Your task to perform on an android device: Go to Reddit.com Image 0: 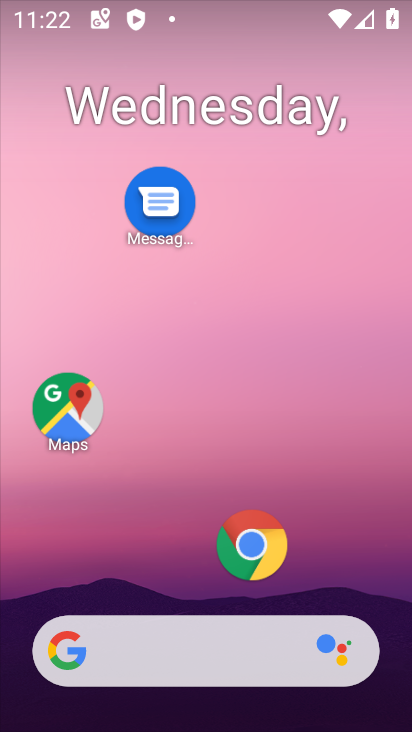
Step 0: click (259, 546)
Your task to perform on an android device: Go to Reddit.com Image 1: 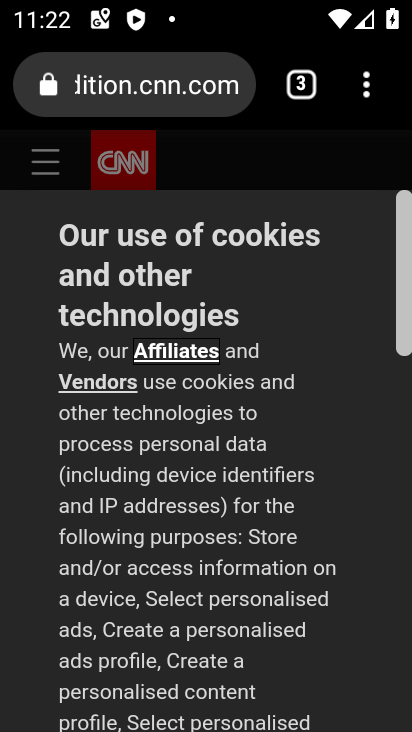
Step 1: click (301, 78)
Your task to perform on an android device: Go to Reddit.com Image 2: 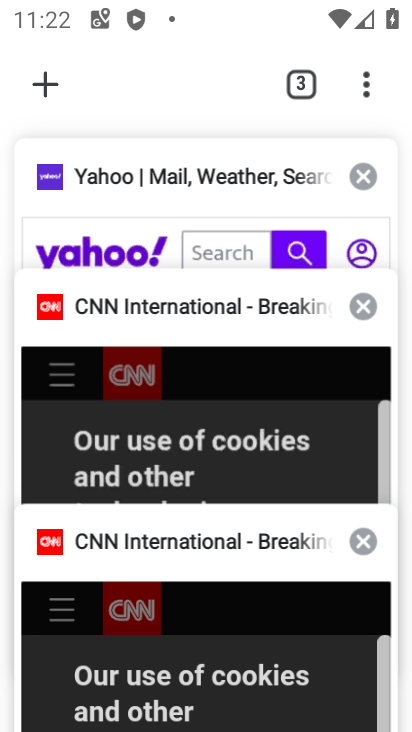
Step 2: click (53, 82)
Your task to perform on an android device: Go to Reddit.com Image 3: 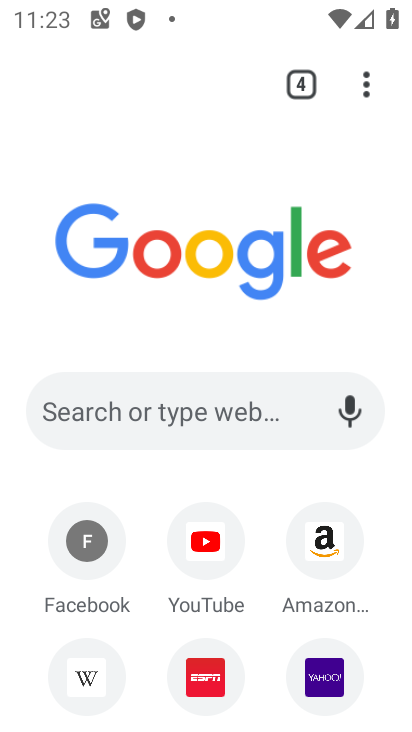
Step 3: click (157, 388)
Your task to perform on an android device: Go to Reddit.com Image 4: 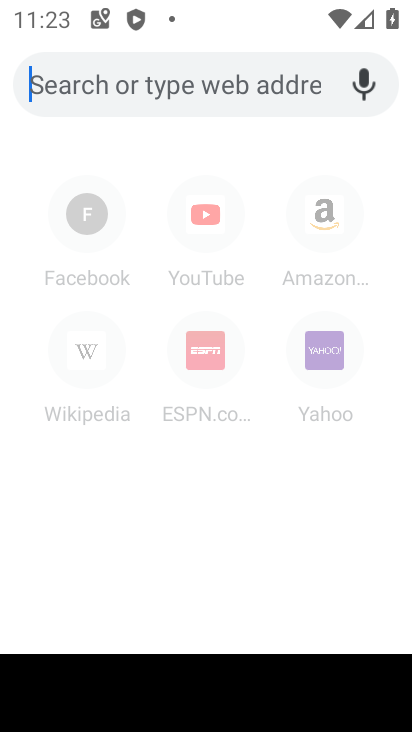
Step 4: type "Reddit.com"
Your task to perform on an android device: Go to Reddit.com Image 5: 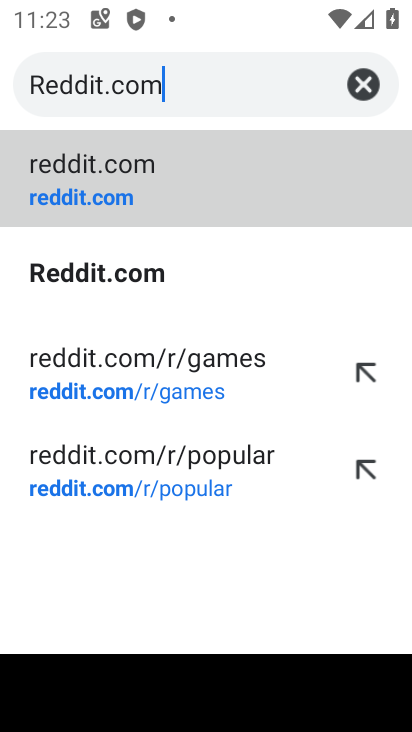
Step 5: click (203, 164)
Your task to perform on an android device: Go to Reddit.com Image 6: 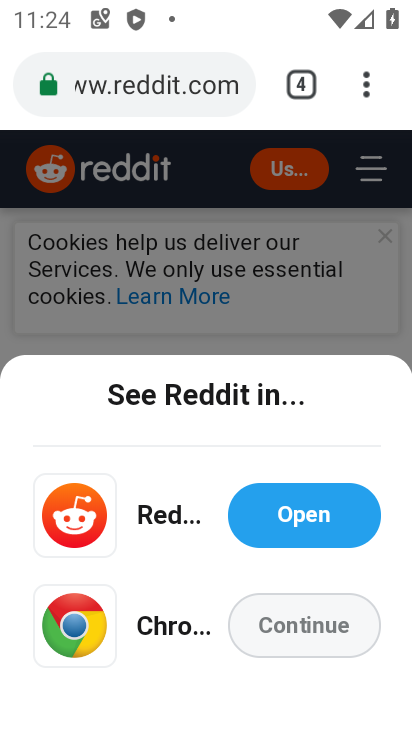
Step 6: task complete